Your task to perform on an android device: turn on the 24-hour format for clock Image 0: 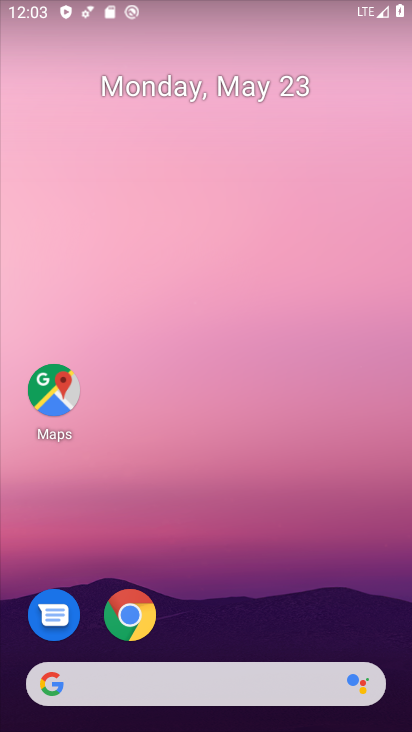
Step 0: drag from (262, 509) to (292, 95)
Your task to perform on an android device: turn on the 24-hour format for clock Image 1: 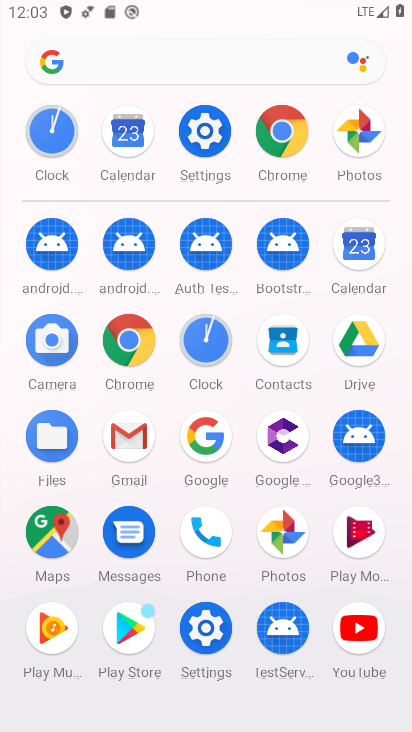
Step 1: click (362, 242)
Your task to perform on an android device: turn on the 24-hour format for clock Image 2: 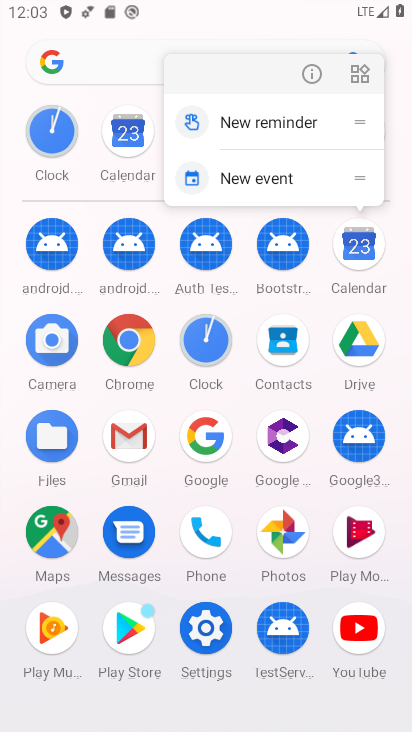
Step 2: click (205, 330)
Your task to perform on an android device: turn on the 24-hour format for clock Image 3: 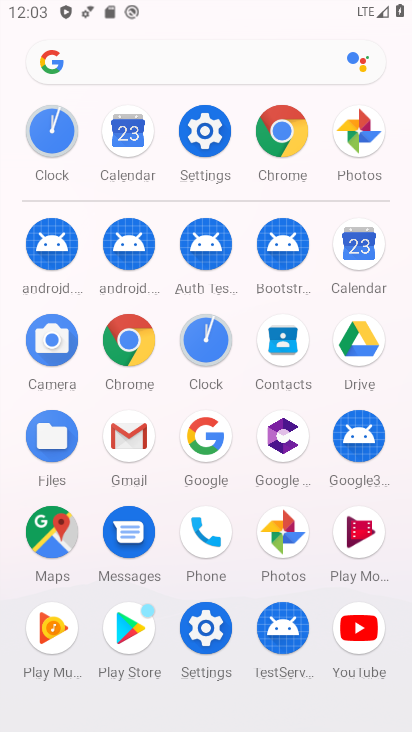
Step 3: click (201, 342)
Your task to perform on an android device: turn on the 24-hour format for clock Image 4: 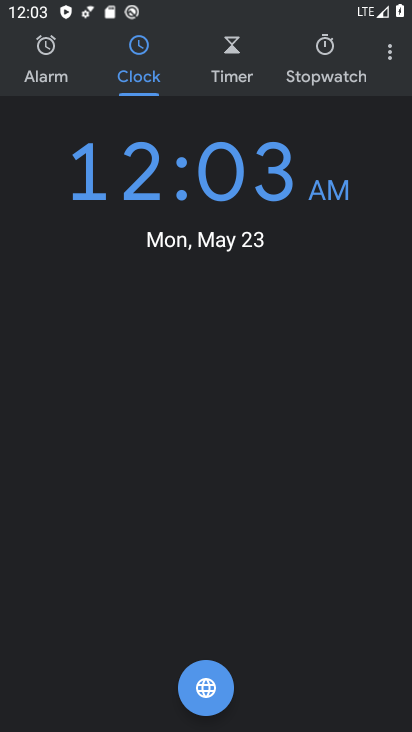
Step 4: click (391, 56)
Your task to perform on an android device: turn on the 24-hour format for clock Image 5: 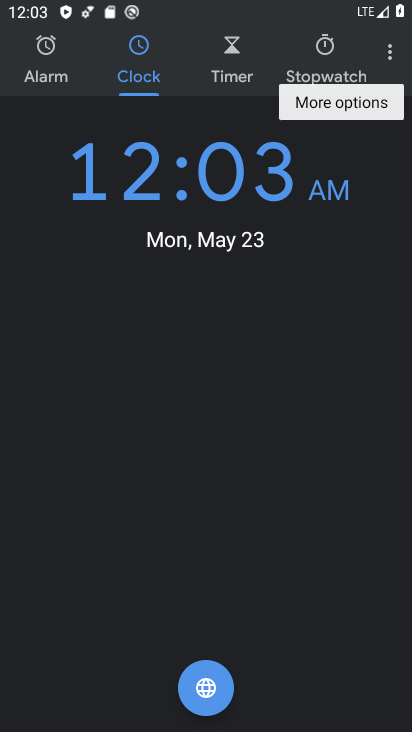
Step 5: click (391, 56)
Your task to perform on an android device: turn on the 24-hour format for clock Image 6: 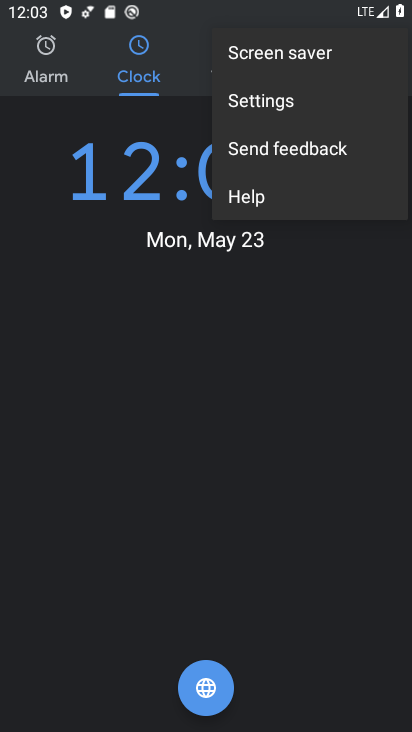
Step 6: click (288, 95)
Your task to perform on an android device: turn on the 24-hour format for clock Image 7: 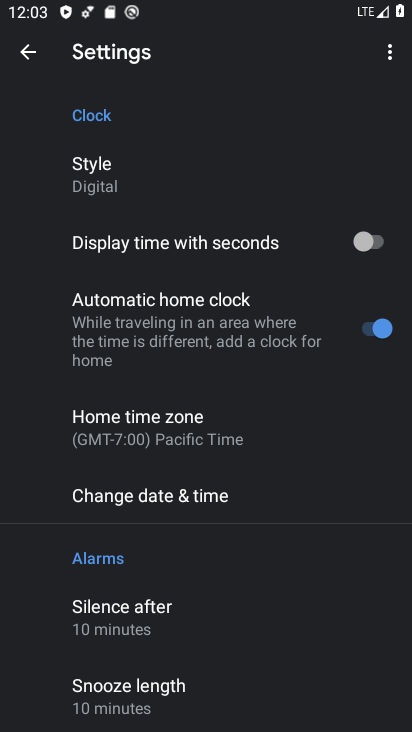
Step 7: drag from (174, 687) to (286, 213)
Your task to perform on an android device: turn on the 24-hour format for clock Image 8: 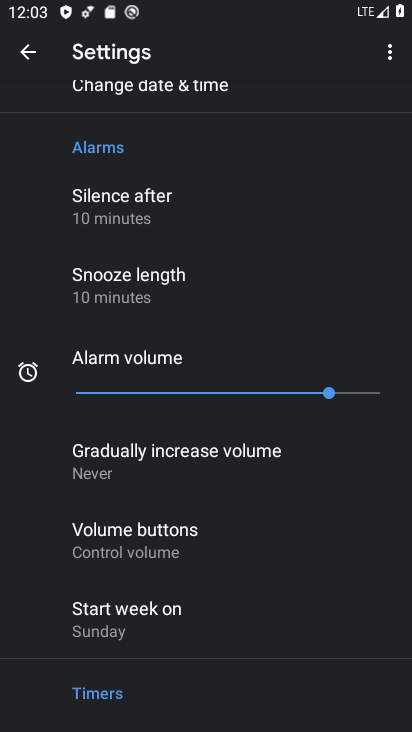
Step 8: drag from (286, 213) to (244, 458)
Your task to perform on an android device: turn on the 24-hour format for clock Image 9: 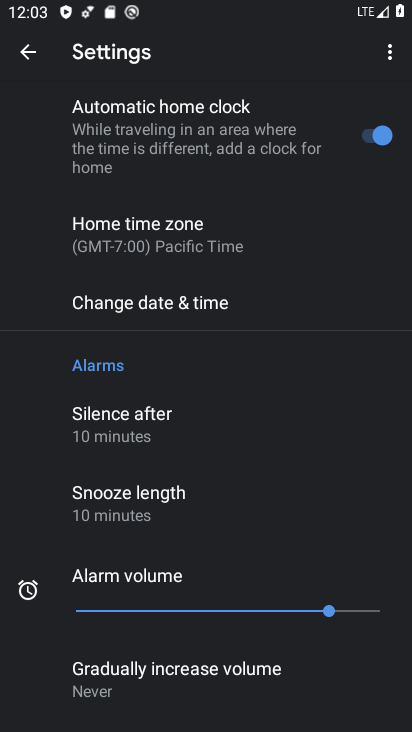
Step 9: click (124, 309)
Your task to perform on an android device: turn on the 24-hour format for clock Image 10: 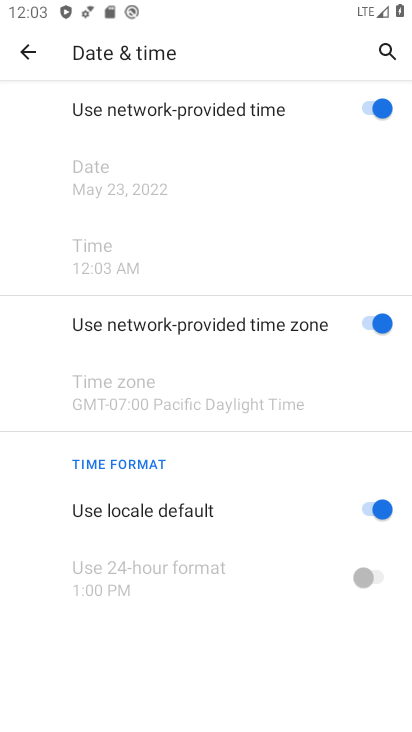
Step 10: click (371, 517)
Your task to perform on an android device: turn on the 24-hour format for clock Image 11: 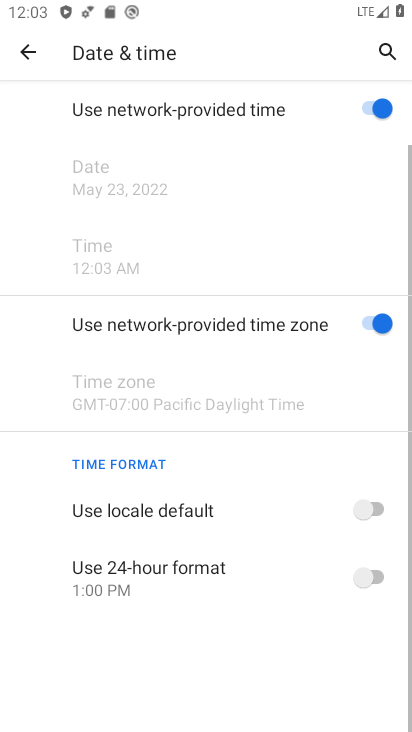
Step 11: click (362, 578)
Your task to perform on an android device: turn on the 24-hour format for clock Image 12: 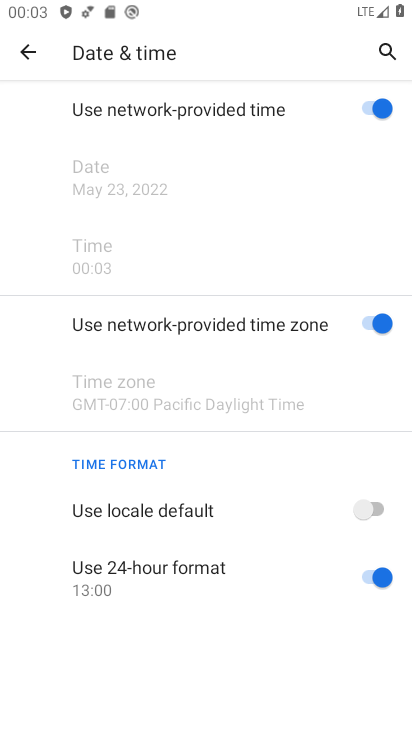
Step 12: task complete